Your task to perform on an android device: See recent photos Image 0: 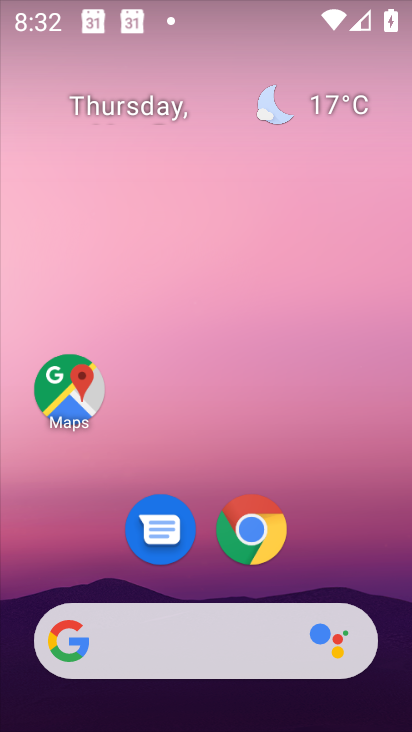
Step 0: drag from (327, 556) to (285, 71)
Your task to perform on an android device: See recent photos Image 1: 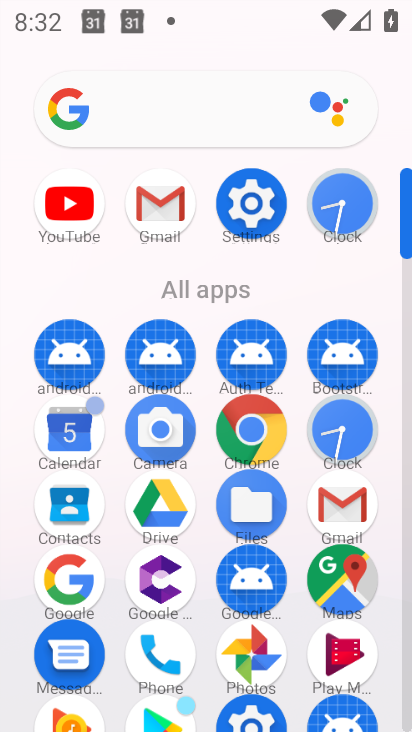
Step 1: click (254, 645)
Your task to perform on an android device: See recent photos Image 2: 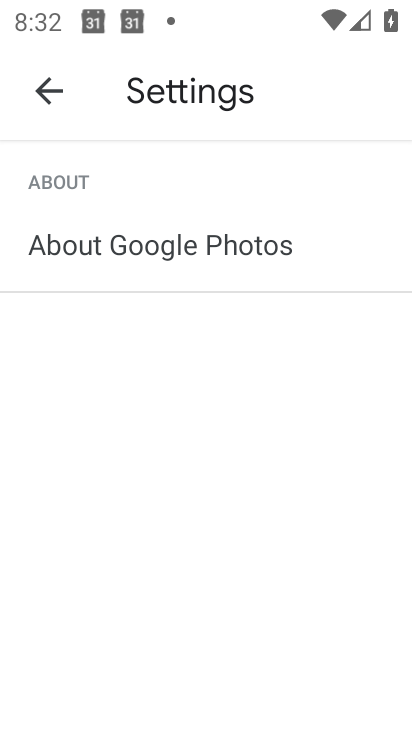
Step 2: click (51, 101)
Your task to perform on an android device: See recent photos Image 3: 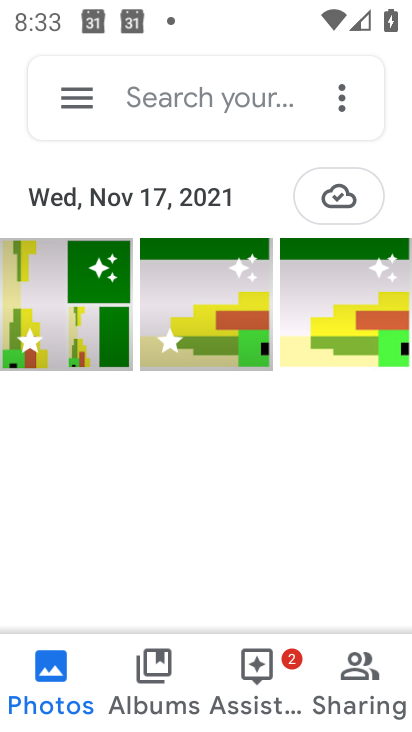
Step 3: task complete